Your task to perform on an android device: Open Maps and search for coffee Image 0: 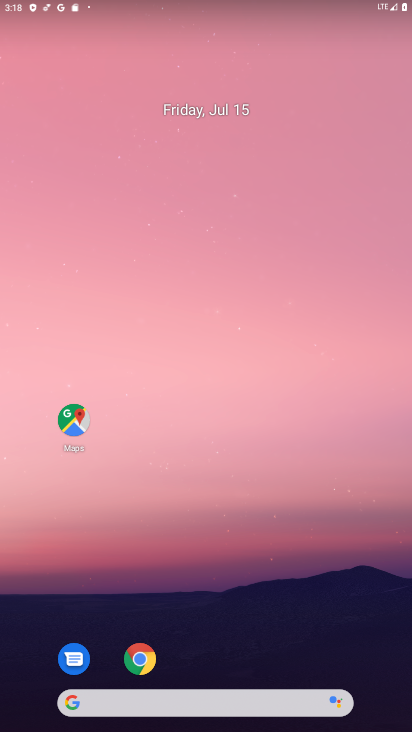
Step 0: click (74, 419)
Your task to perform on an android device: Open Maps and search for coffee Image 1: 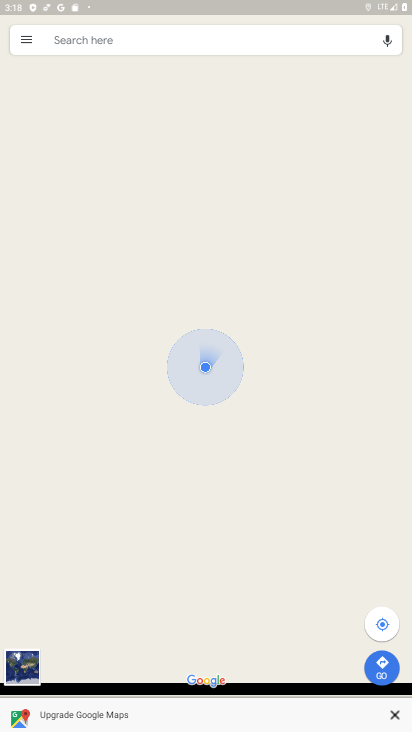
Step 1: click (194, 35)
Your task to perform on an android device: Open Maps and search for coffee Image 2: 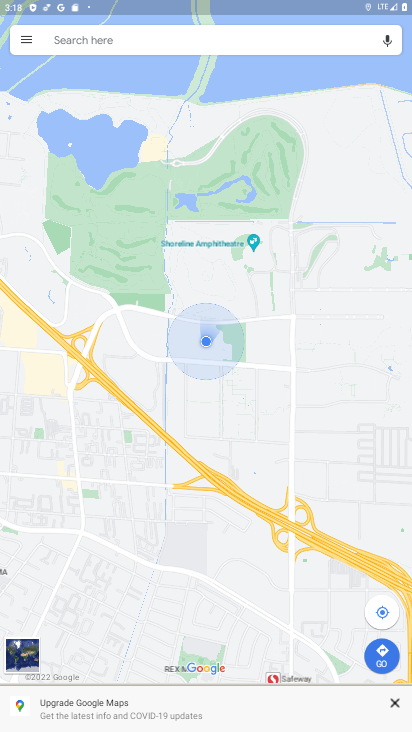
Step 2: click (86, 33)
Your task to perform on an android device: Open Maps and search for coffee Image 3: 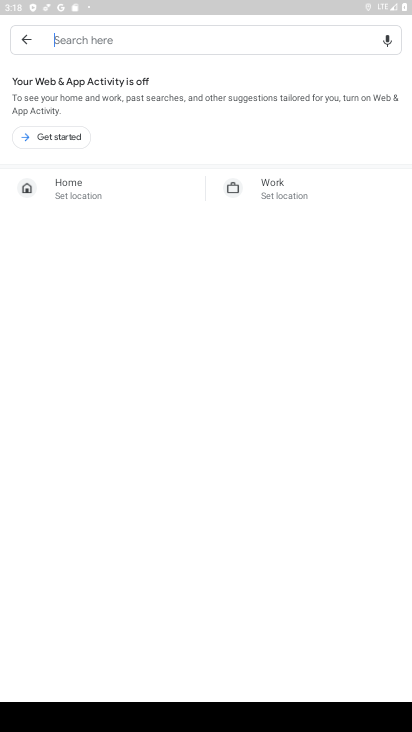
Step 3: type "coffee"
Your task to perform on an android device: Open Maps and search for coffee Image 4: 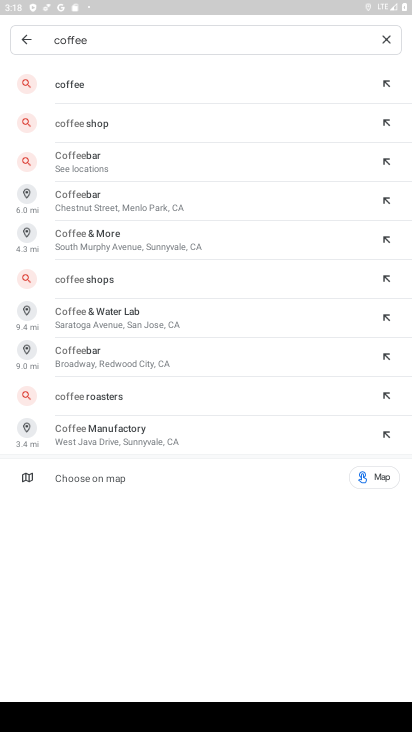
Step 4: click (81, 77)
Your task to perform on an android device: Open Maps and search for coffee Image 5: 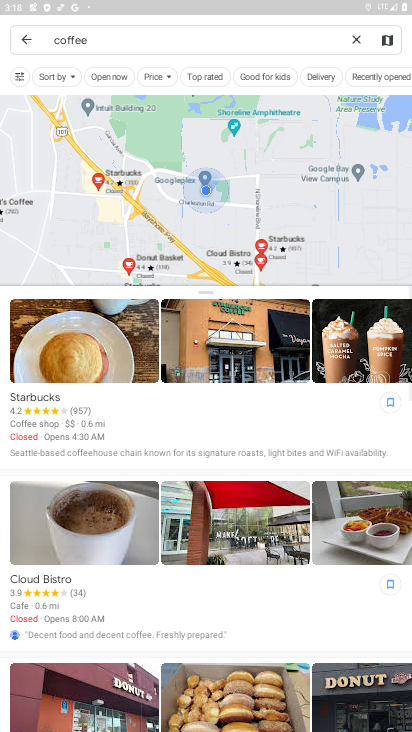
Step 5: task complete